Your task to perform on an android device: check out phone information Image 0: 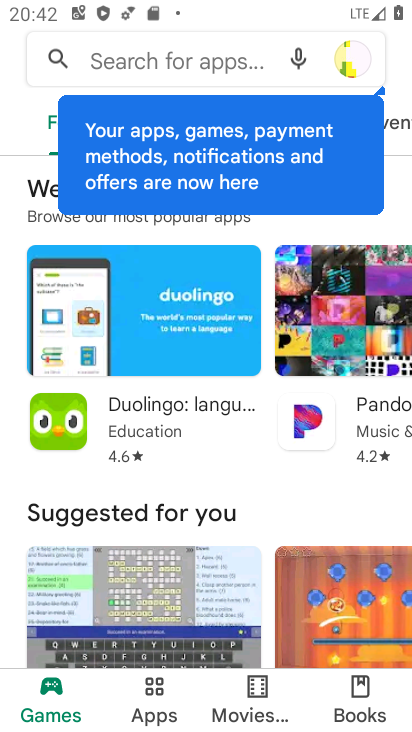
Step 0: press back button
Your task to perform on an android device: check out phone information Image 1: 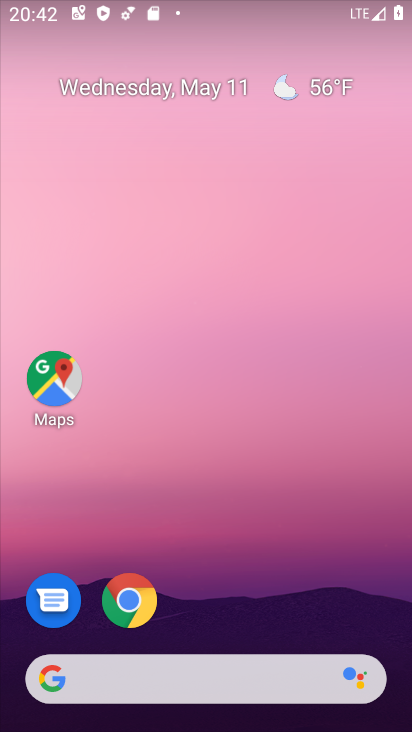
Step 1: drag from (235, 565) to (244, 107)
Your task to perform on an android device: check out phone information Image 2: 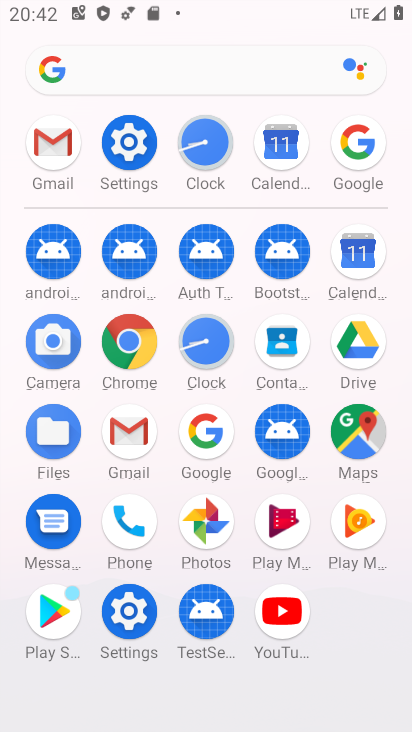
Step 2: click (128, 143)
Your task to perform on an android device: check out phone information Image 3: 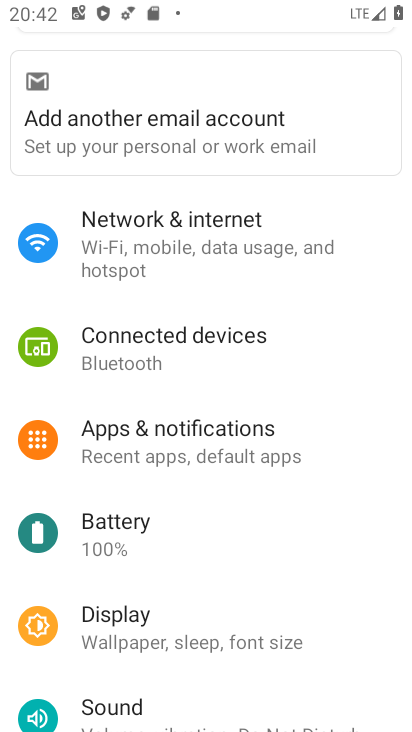
Step 3: drag from (179, 568) to (217, 405)
Your task to perform on an android device: check out phone information Image 4: 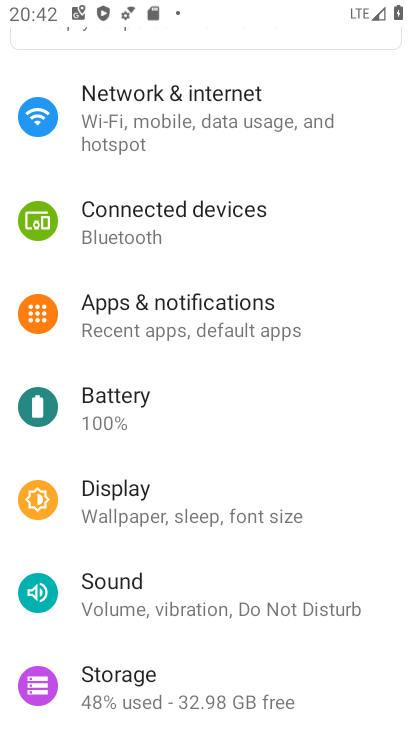
Step 4: drag from (170, 546) to (270, 415)
Your task to perform on an android device: check out phone information Image 5: 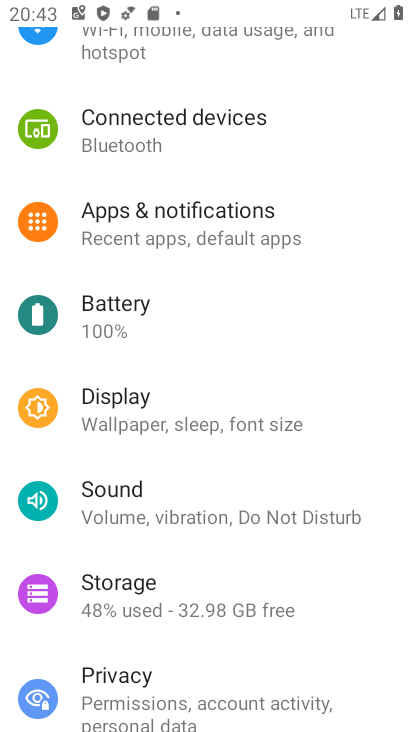
Step 5: drag from (171, 560) to (294, 423)
Your task to perform on an android device: check out phone information Image 6: 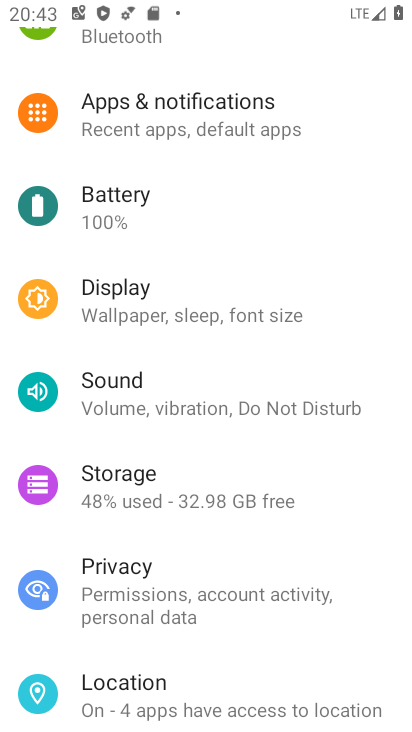
Step 6: drag from (176, 551) to (298, 378)
Your task to perform on an android device: check out phone information Image 7: 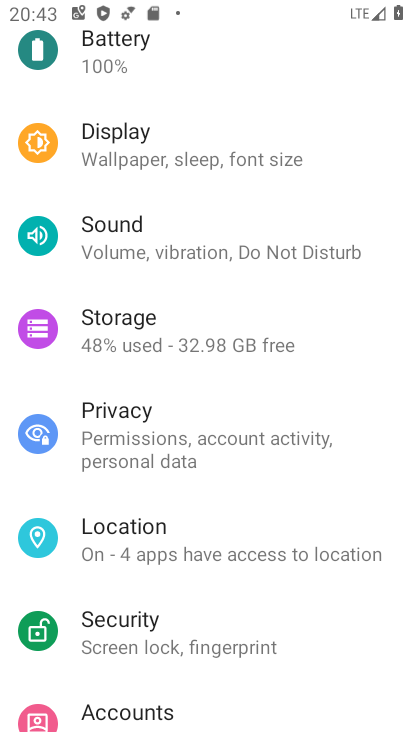
Step 7: drag from (158, 490) to (272, 361)
Your task to perform on an android device: check out phone information Image 8: 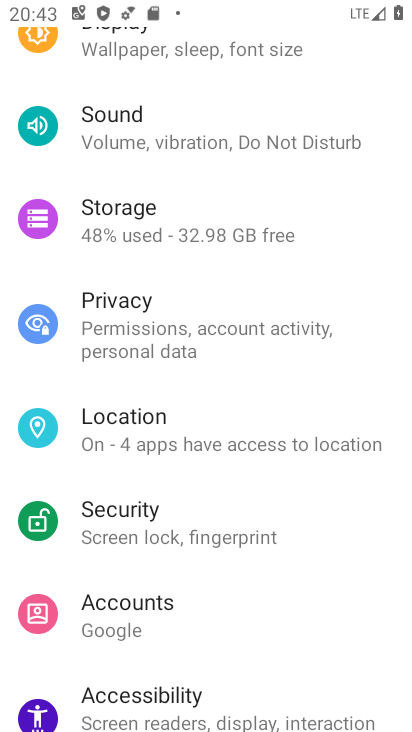
Step 8: drag from (146, 480) to (273, 345)
Your task to perform on an android device: check out phone information Image 9: 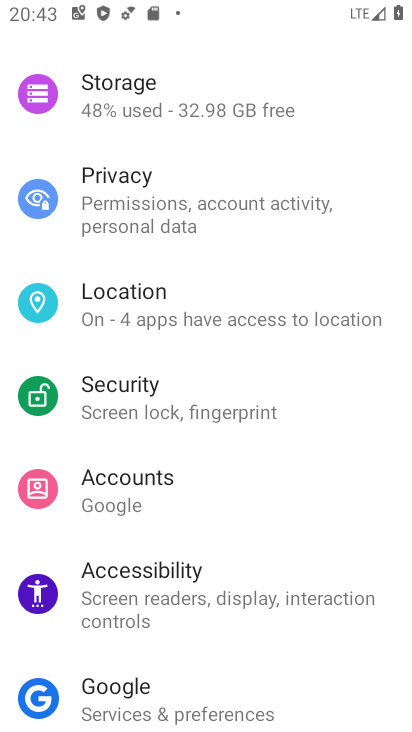
Step 9: drag from (151, 456) to (263, 339)
Your task to perform on an android device: check out phone information Image 10: 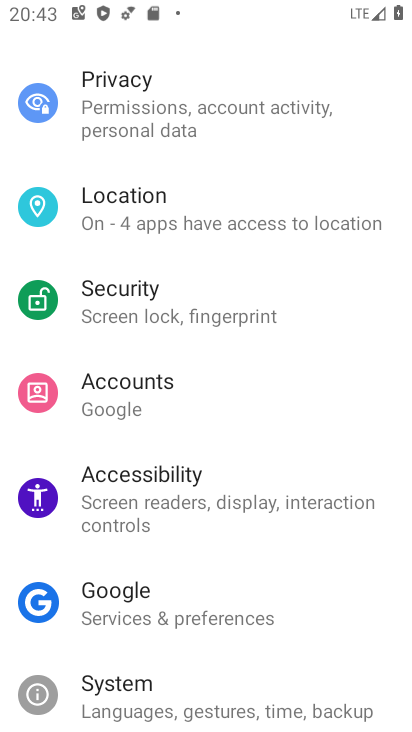
Step 10: drag from (116, 553) to (263, 378)
Your task to perform on an android device: check out phone information Image 11: 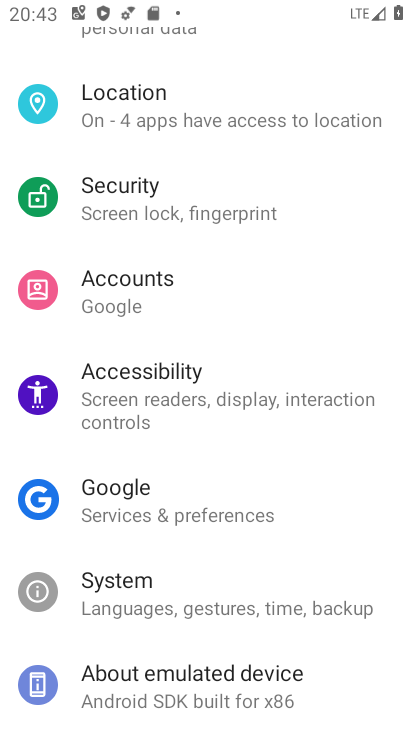
Step 11: click (160, 676)
Your task to perform on an android device: check out phone information Image 12: 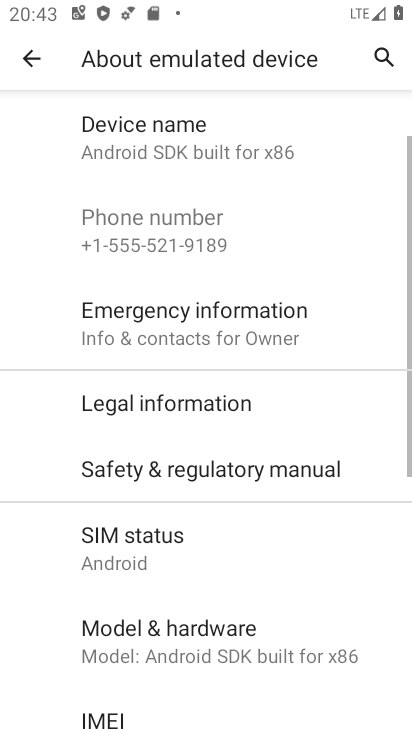
Step 12: task complete